Your task to perform on an android device: snooze an email in the gmail app Image 0: 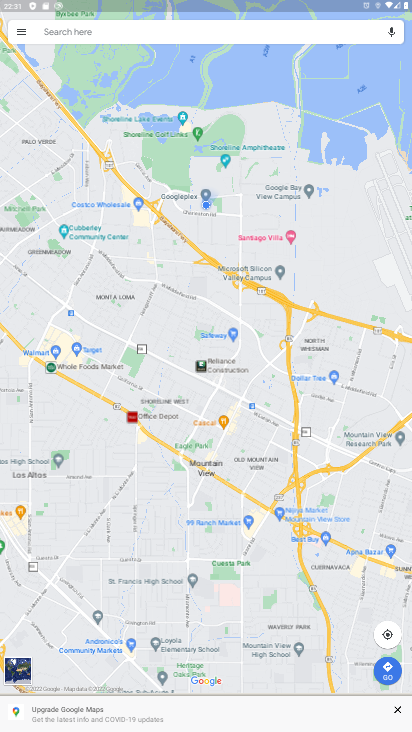
Step 0: press home button
Your task to perform on an android device: snooze an email in the gmail app Image 1: 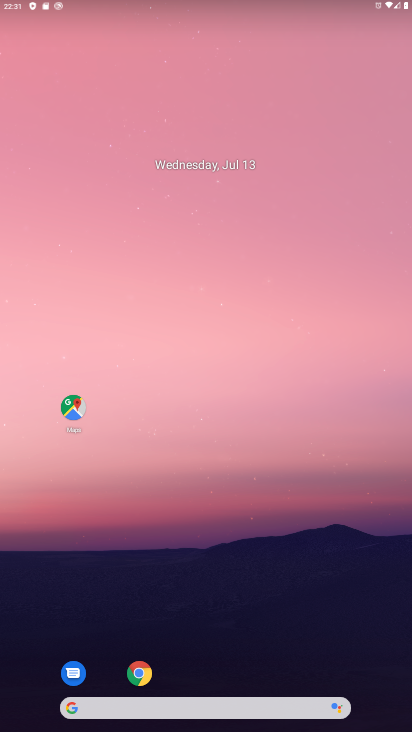
Step 1: drag from (191, 704) to (243, 207)
Your task to perform on an android device: snooze an email in the gmail app Image 2: 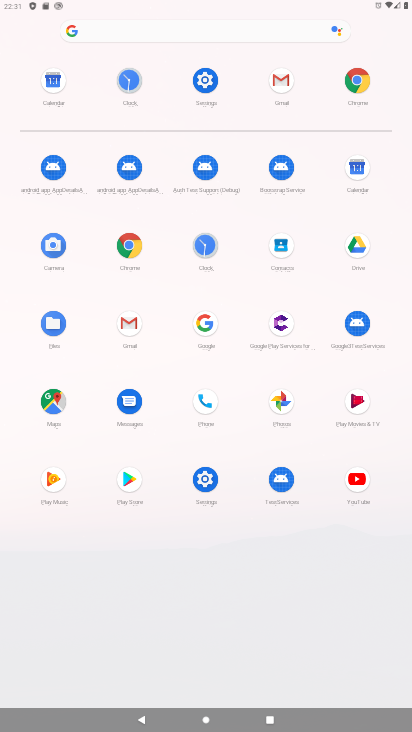
Step 2: click (279, 86)
Your task to perform on an android device: snooze an email in the gmail app Image 3: 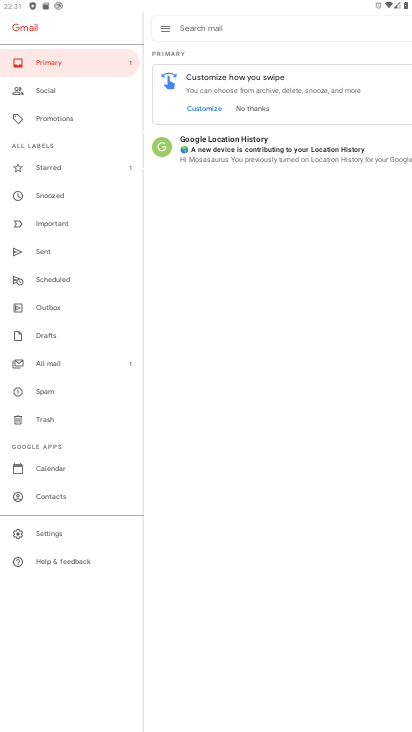
Step 3: click (296, 152)
Your task to perform on an android device: snooze an email in the gmail app Image 4: 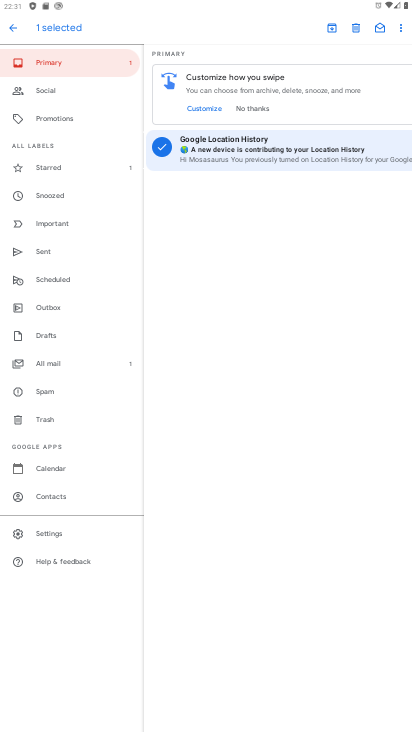
Step 4: click (399, 25)
Your task to perform on an android device: snooze an email in the gmail app Image 5: 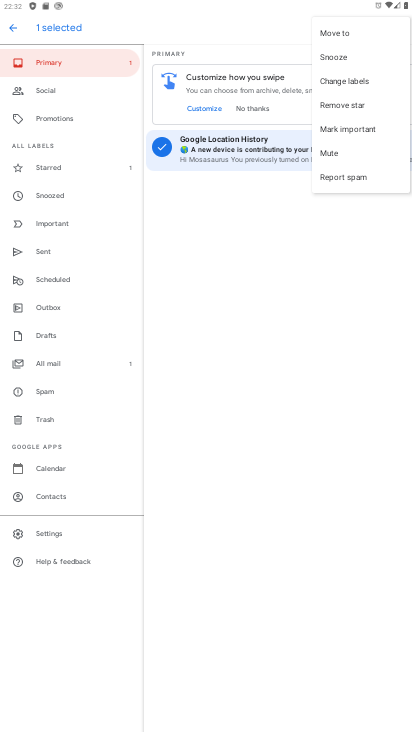
Step 5: click (338, 55)
Your task to perform on an android device: snooze an email in the gmail app Image 6: 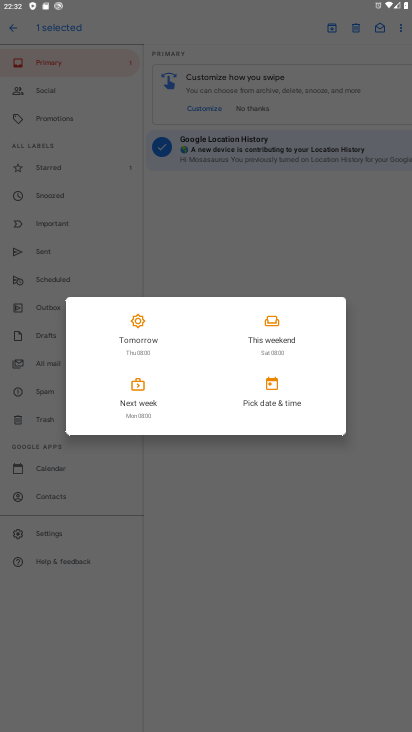
Step 6: click (277, 391)
Your task to perform on an android device: snooze an email in the gmail app Image 7: 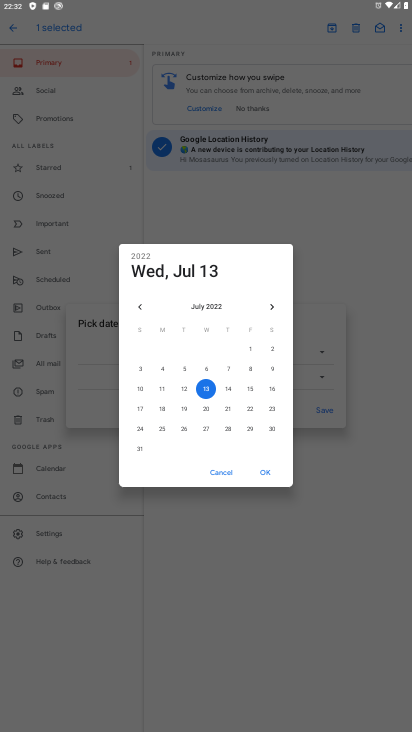
Step 7: click (224, 390)
Your task to perform on an android device: snooze an email in the gmail app Image 8: 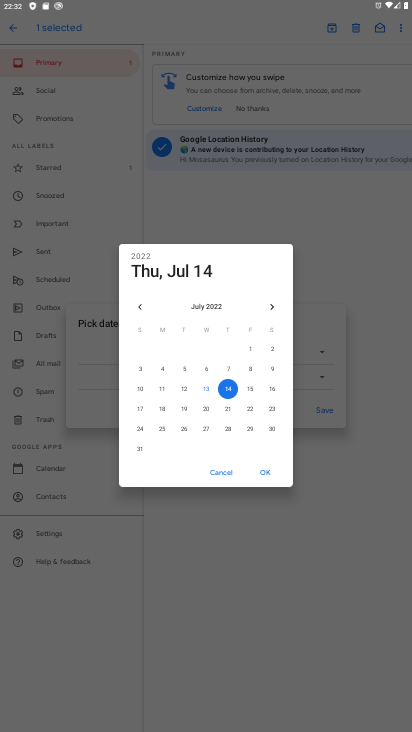
Step 8: click (263, 469)
Your task to perform on an android device: snooze an email in the gmail app Image 9: 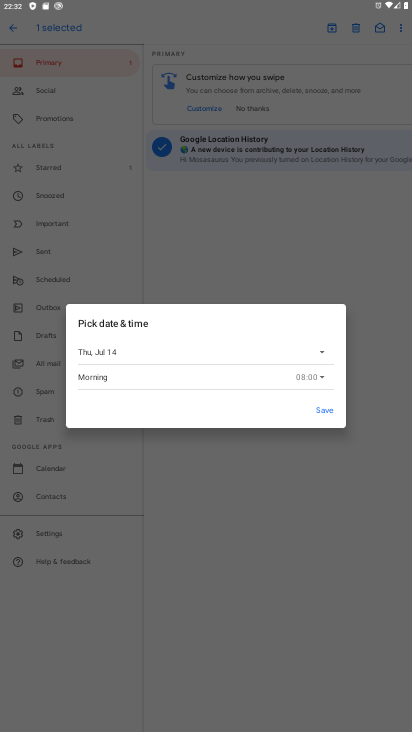
Step 9: click (327, 409)
Your task to perform on an android device: snooze an email in the gmail app Image 10: 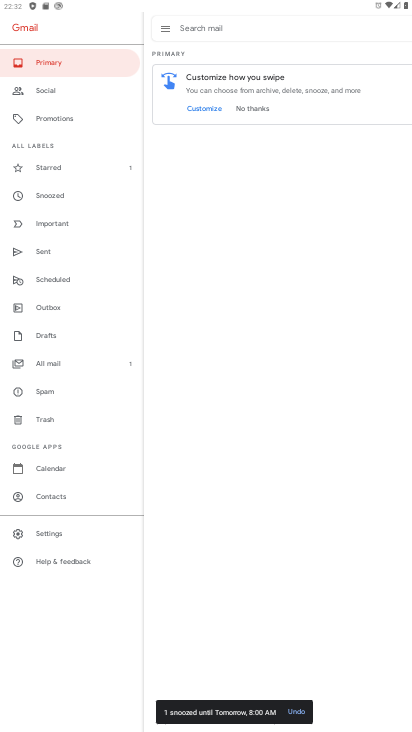
Step 10: task complete